Your task to perform on an android device: Open CNN.com Image 0: 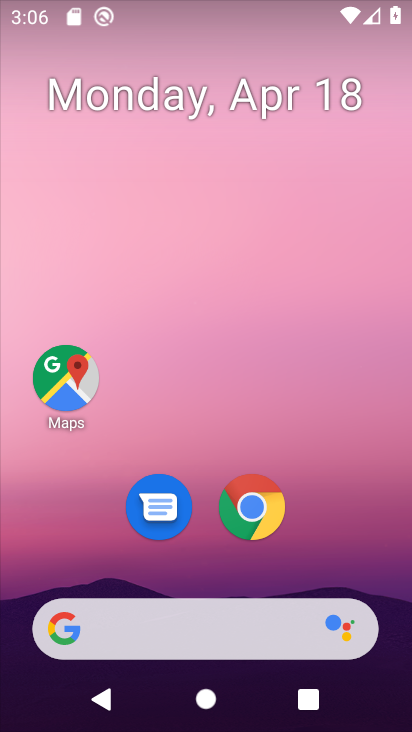
Step 0: click (233, 642)
Your task to perform on an android device: Open CNN.com Image 1: 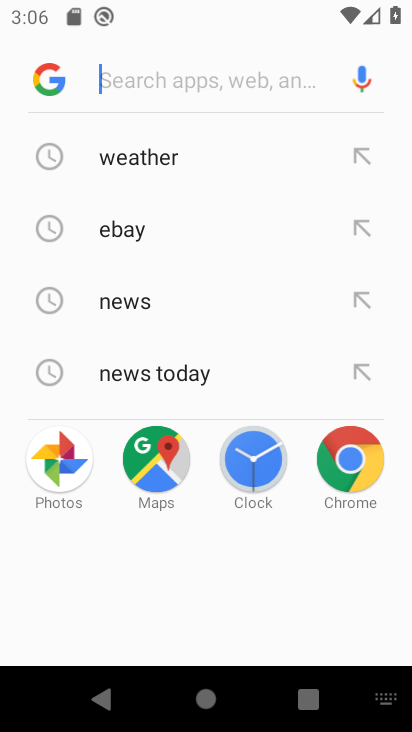
Step 1: type " CNN.com"
Your task to perform on an android device: Open CNN.com Image 2: 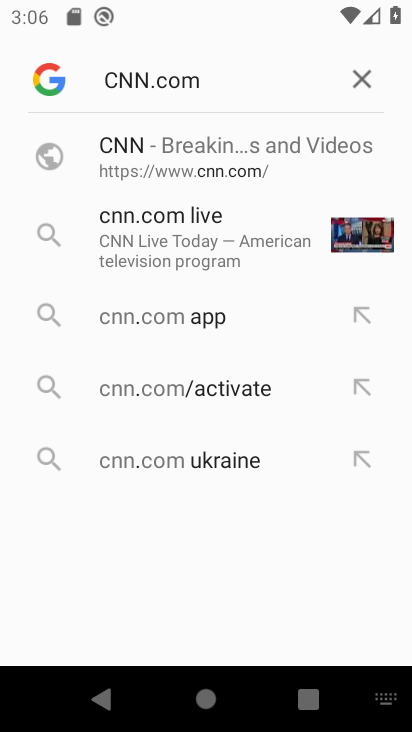
Step 2: click (215, 154)
Your task to perform on an android device: Open CNN.com Image 3: 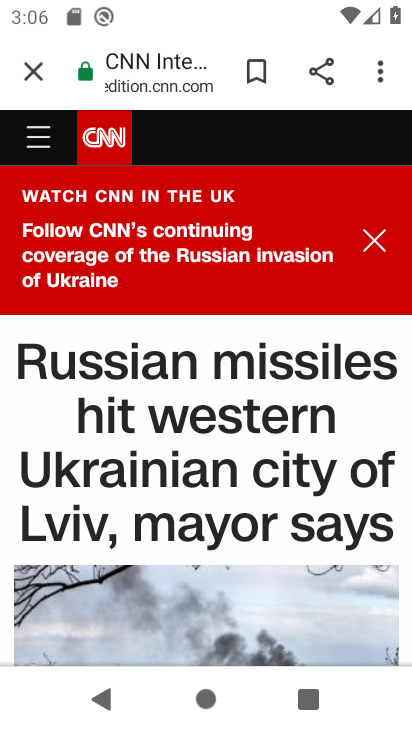
Step 3: task complete